Your task to perform on an android device: Search for Mexican restaurants on Maps Image 0: 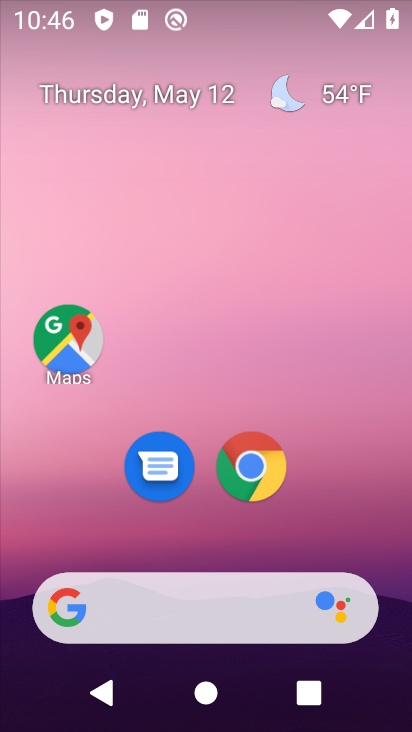
Step 0: drag from (323, 465) to (340, 95)
Your task to perform on an android device: Search for Mexican restaurants on Maps Image 1: 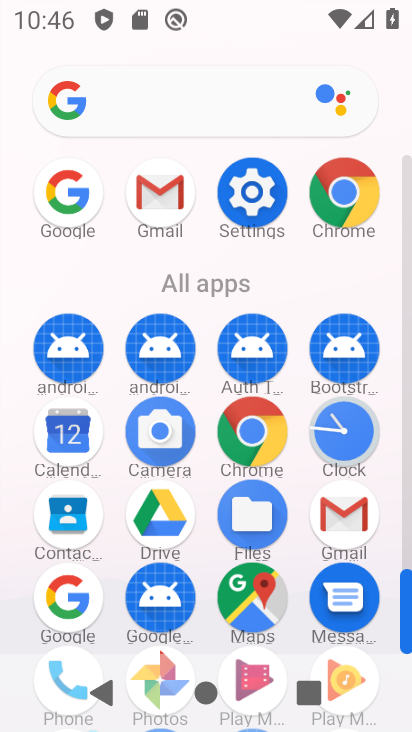
Step 1: drag from (223, 592) to (248, 272)
Your task to perform on an android device: Search for Mexican restaurants on Maps Image 2: 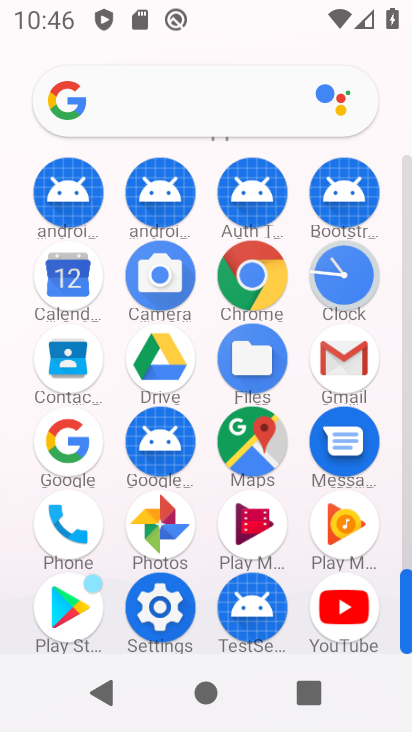
Step 2: click (258, 448)
Your task to perform on an android device: Search for Mexican restaurants on Maps Image 3: 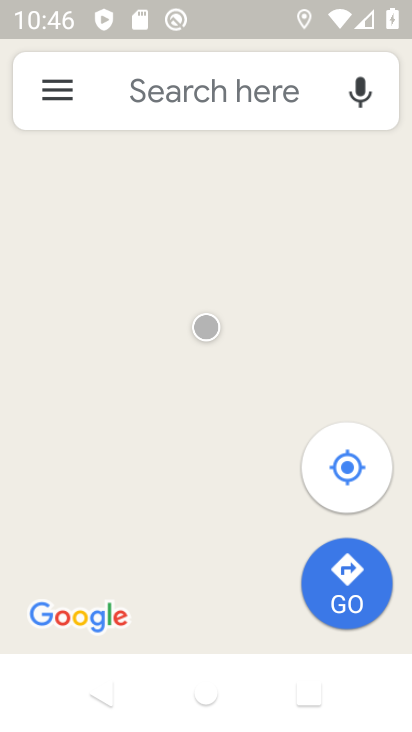
Step 3: click (210, 103)
Your task to perform on an android device: Search for Mexican restaurants on Maps Image 4: 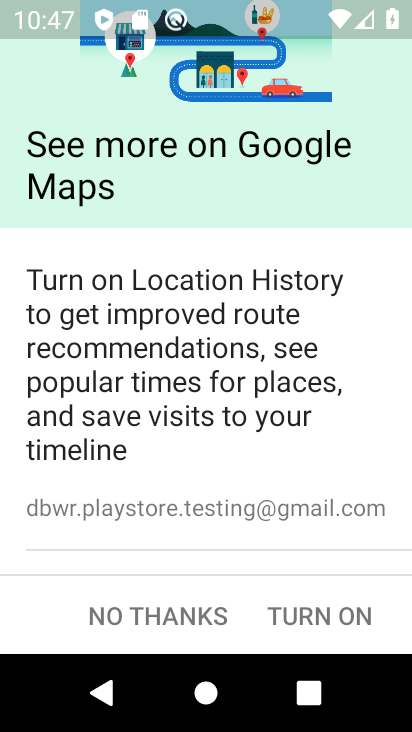
Step 4: click (161, 621)
Your task to perform on an android device: Search for Mexican restaurants on Maps Image 5: 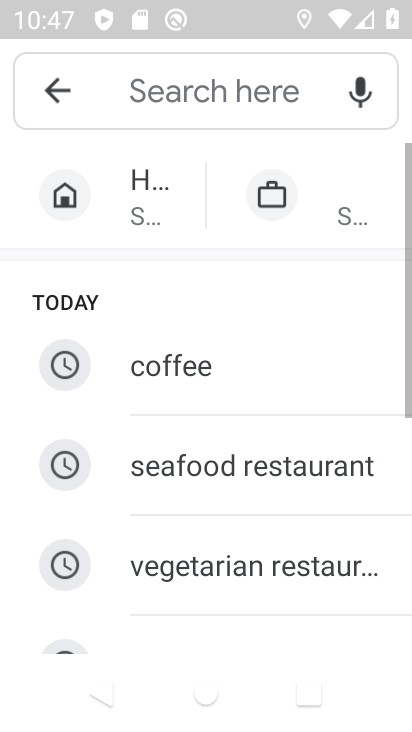
Step 5: click (204, 97)
Your task to perform on an android device: Search for Mexican restaurants on Maps Image 6: 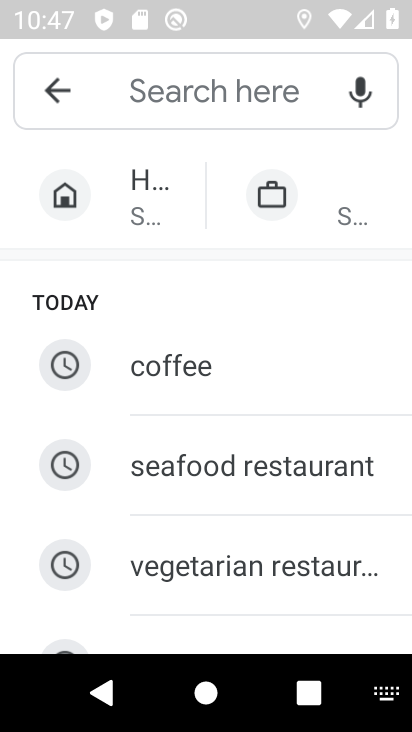
Step 6: type "mexican restaurants "
Your task to perform on an android device: Search for Mexican restaurants on Maps Image 7: 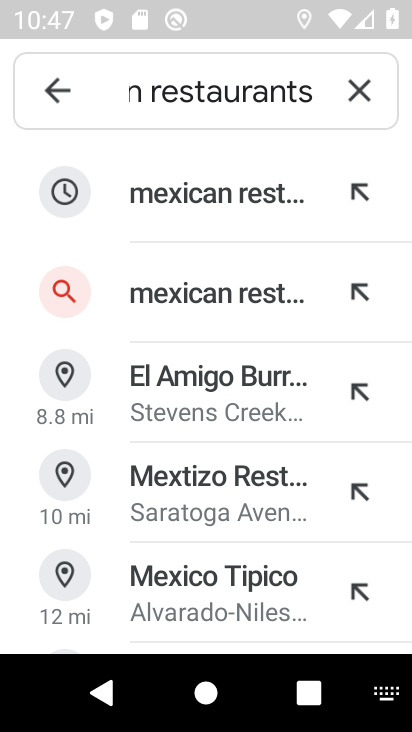
Step 7: click (203, 221)
Your task to perform on an android device: Search for Mexican restaurants on Maps Image 8: 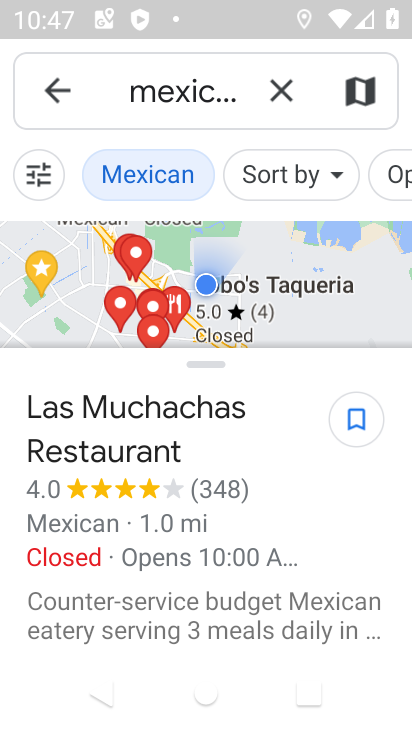
Step 8: task complete